Your task to perform on an android device: Go to location settings Image 0: 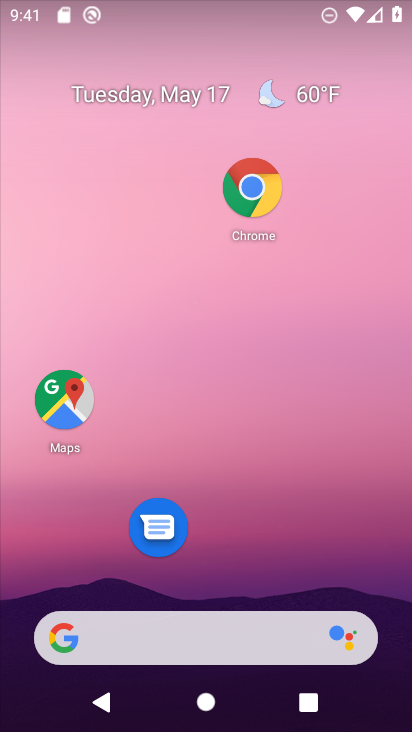
Step 0: drag from (282, 567) to (302, 129)
Your task to perform on an android device: Go to location settings Image 1: 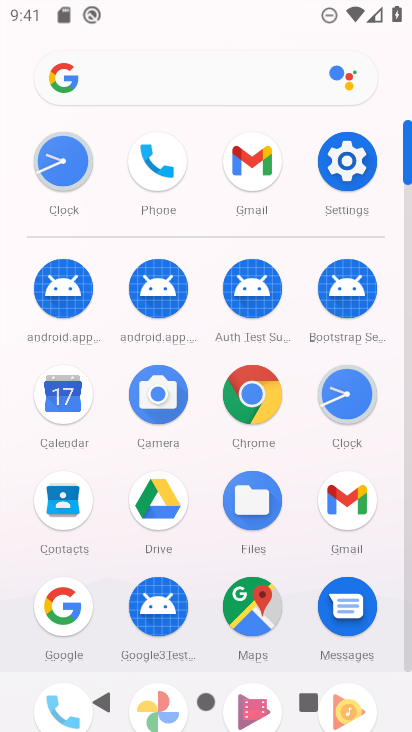
Step 1: click (370, 142)
Your task to perform on an android device: Go to location settings Image 2: 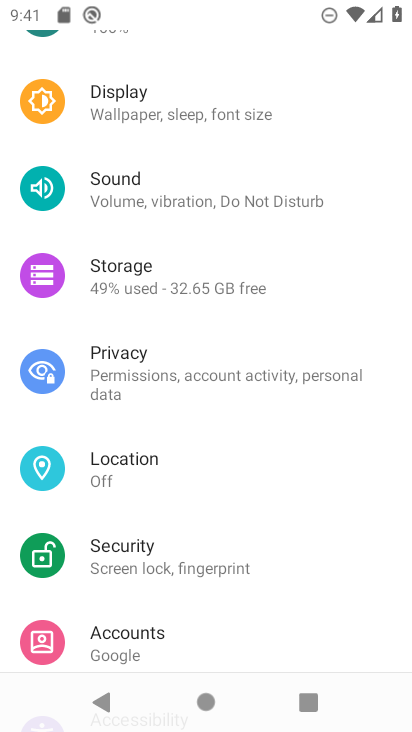
Step 2: click (196, 470)
Your task to perform on an android device: Go to location settings Image 3: 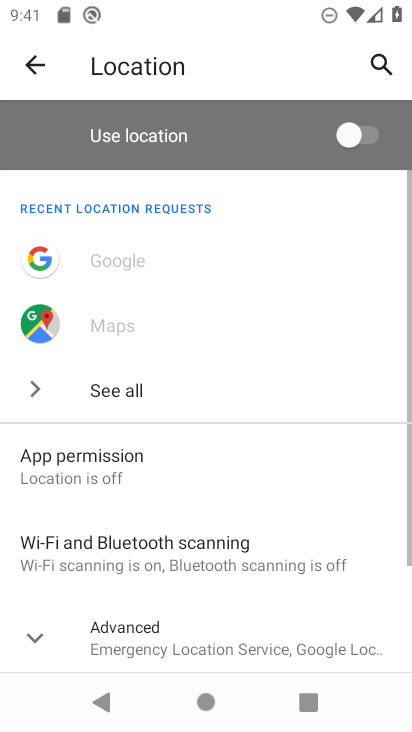
Step 3: click (377, 146)
Your task to perform on an android device: Go to location settings Image 4: 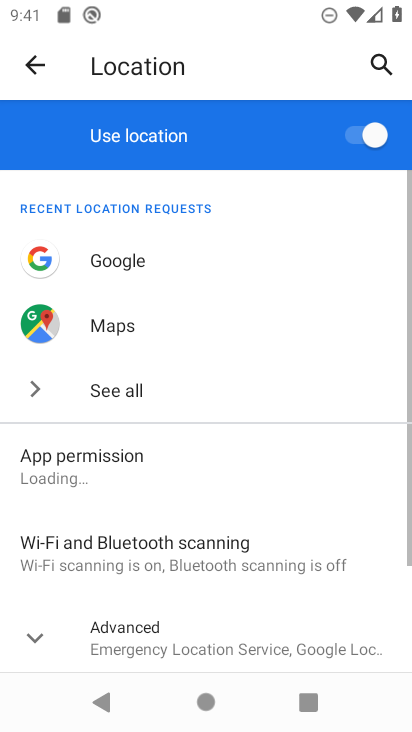
Step 4: task complete